Your task to perform on an android device: Open Google Maps Image 0: 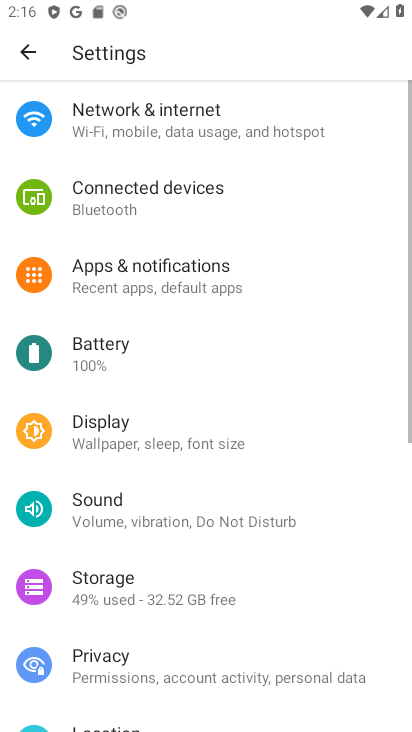
Step 0: press home button
Your task to perform on an android device: Open Google Maps Image 1: 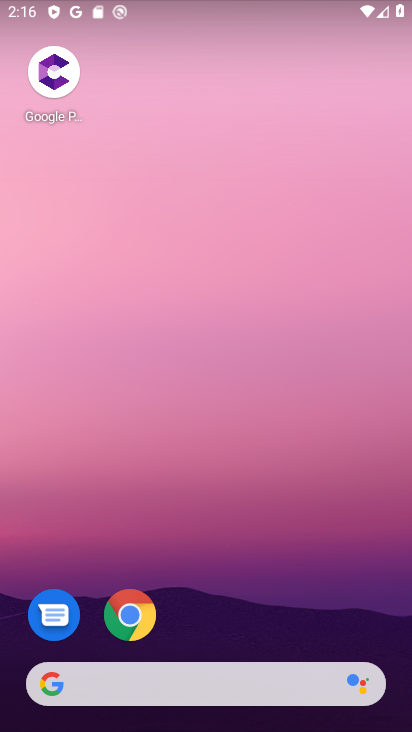
Step 1: drag from (226, 210) to (213, 91)
Your task to perform on an android device: Open Google Maps Image 2: 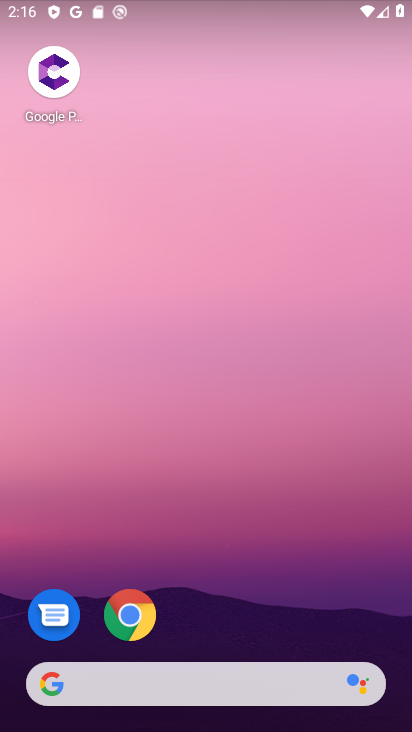
Step 2: drag from (161, 521) to (163, 146)
Your task to perform on an android device: Open Google Maps Image 3: 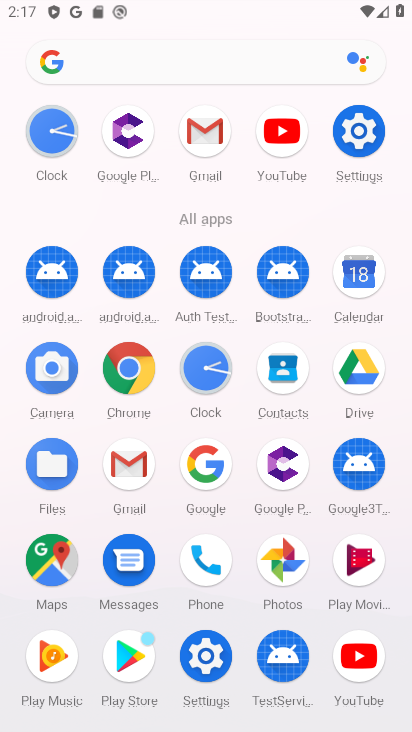
Step 3: click (54, 559)
Your task to perform on an android device: Open Google Maps Image 4: 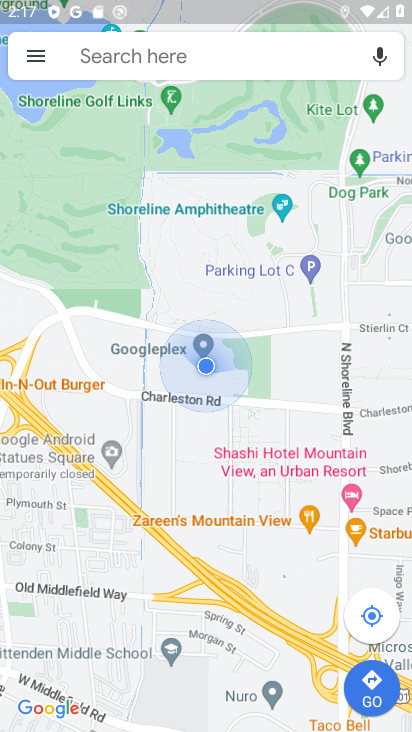
Step 4: task complete